Your task to perform on an android device: Go to internet settings Image 0: 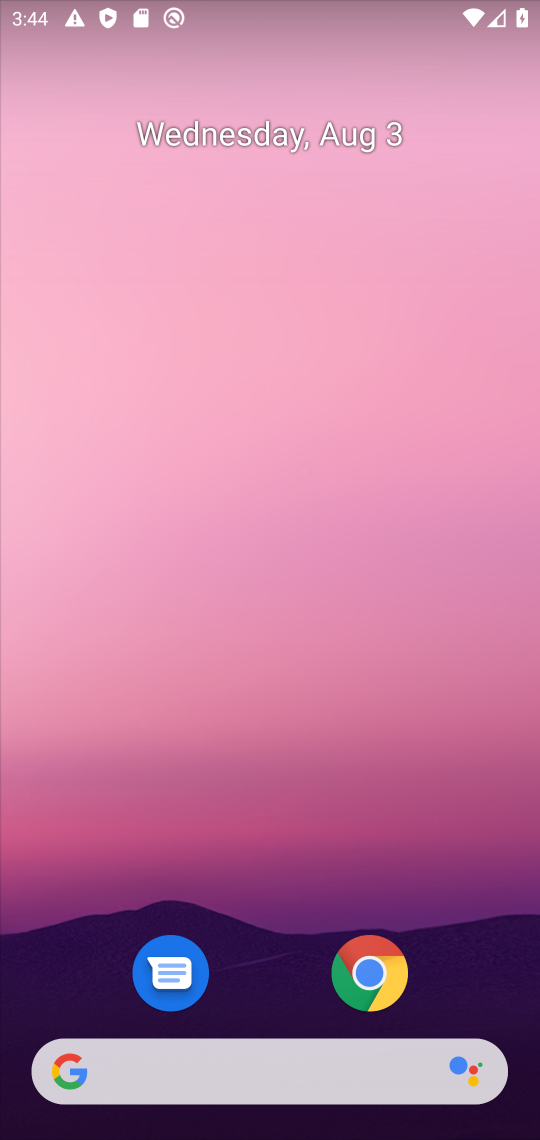
Step 0: drag from (289, 801) to (371, 9)
Your task to perform on an android device: Go to internet settings Image 1: 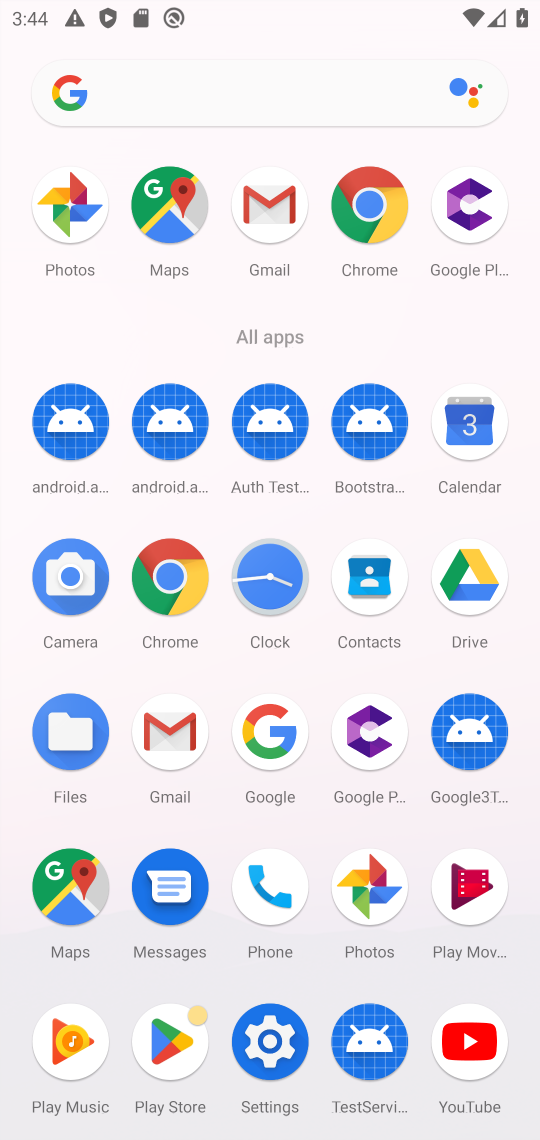
Step 1: click (266, 1026)
Your task to perform on an android device: Go to internet settings Image 2: 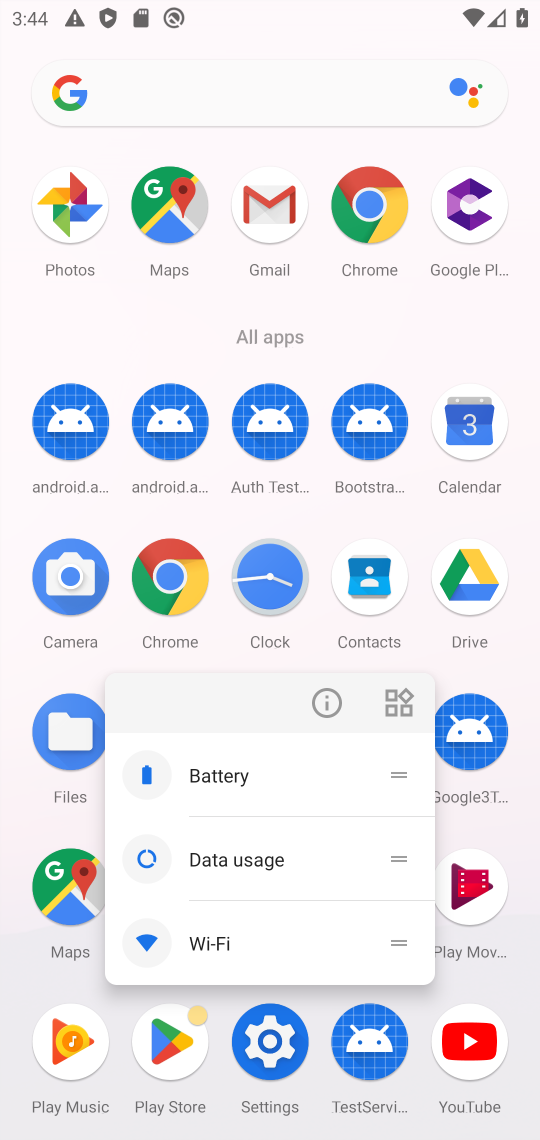
Step 2: click (266, 1028)
Your task to perform on an android device: Go to internet settings Image 3: 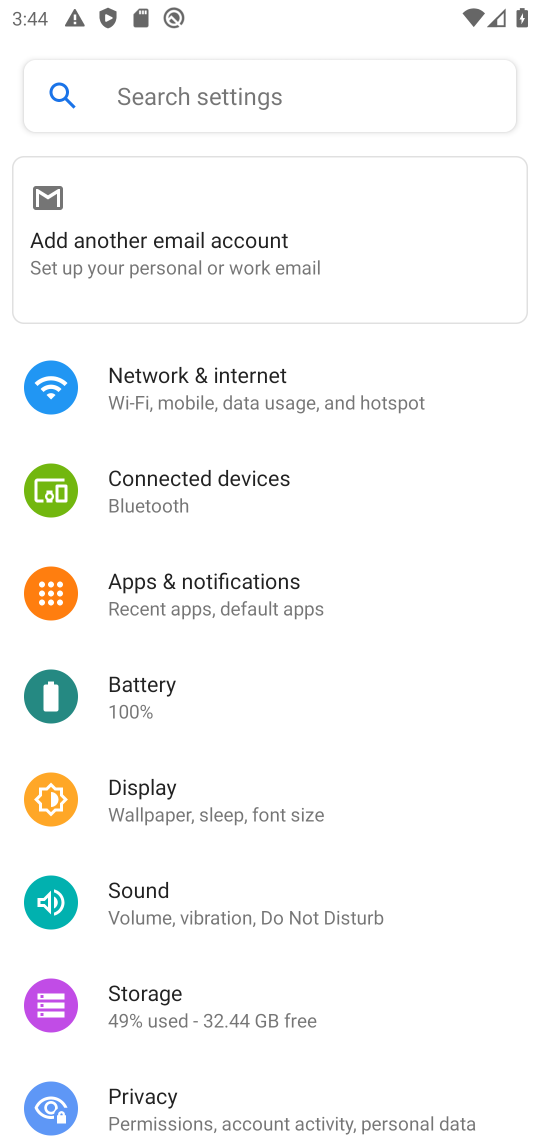
Step 3: click (336, 394)
Your task to perform on an android device: Go to internet settings Image 4: 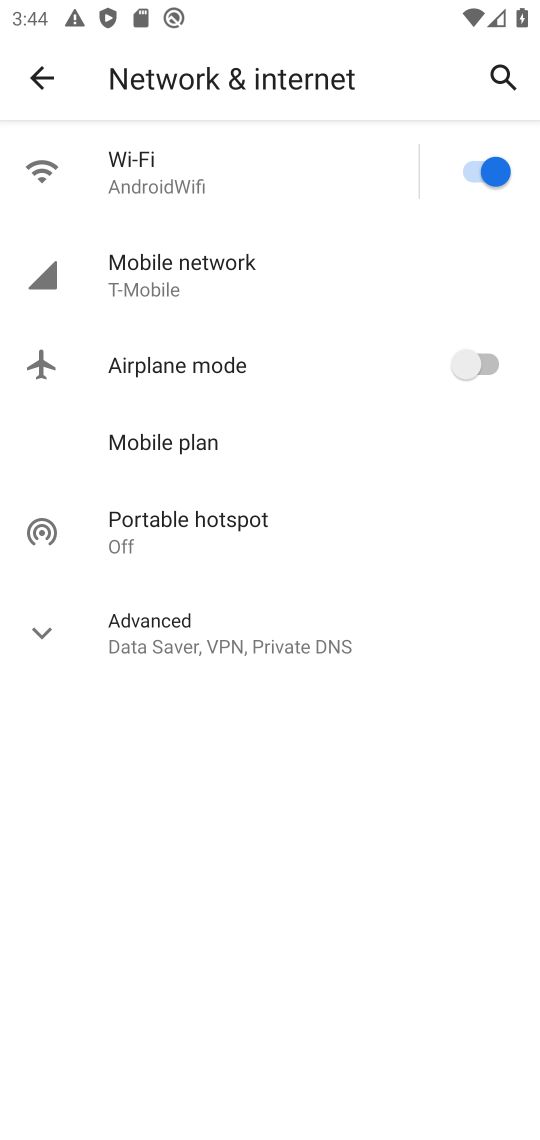
Step 4: task complete